Your task to perform on an android device: Do I have any events tomorrow? Image 0: 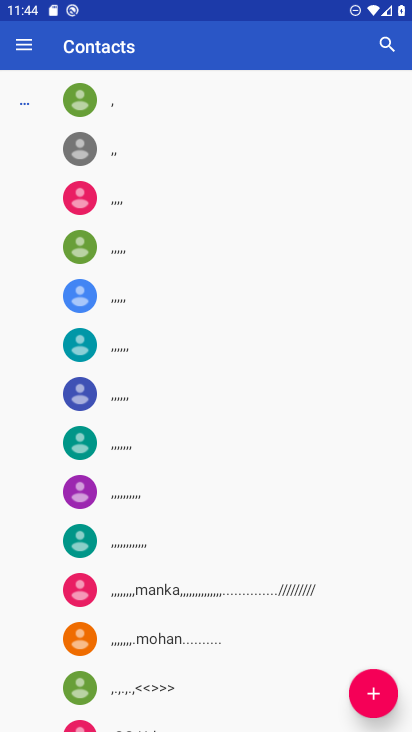
Step 0: press home button
Your task to perform on an android device: Do I have any events tomorrow? Image 1: 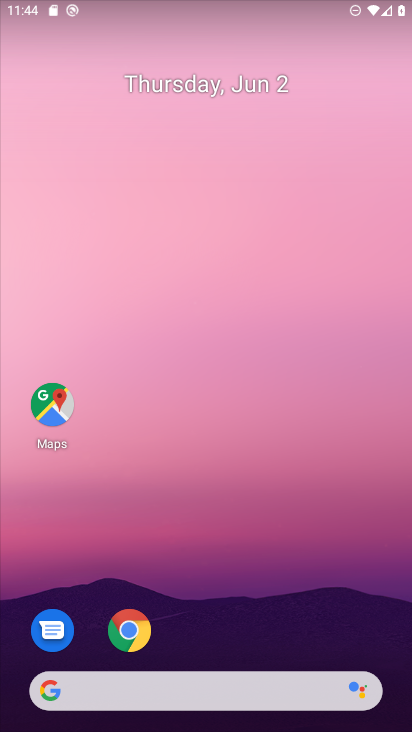
Step 1: drag from (213, 639) to (133, 7)
Your task to perform on an android device: Do I have any events tomorrow? Image 2: 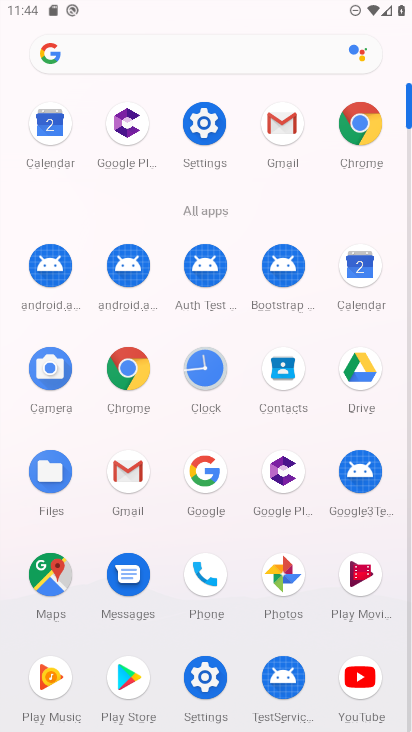
Step 2: click (49, 141)
Your task to perform on an android device: Do I have any events tomorrow? Image 3: 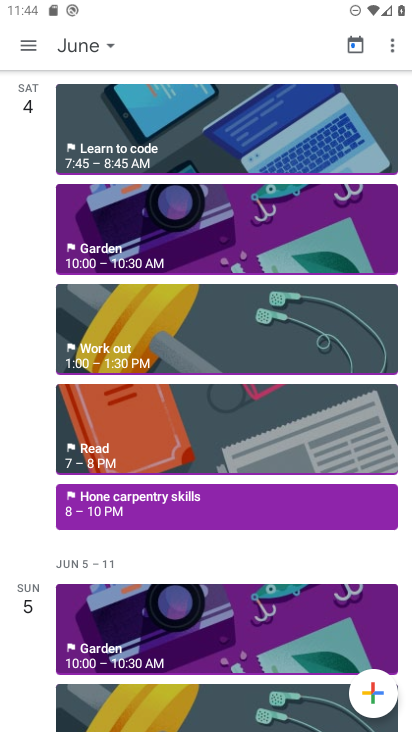
Step 3: task complete